Your task to perform on an android device: Play the last video I watched on Youtube Image 0: 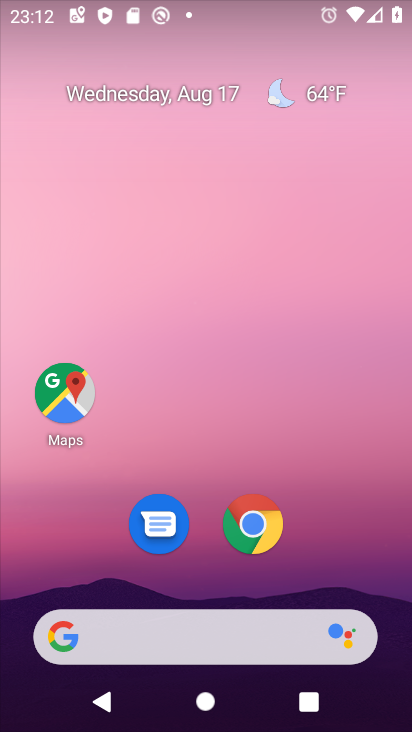
Step 0: drag from (324, 509) to (336, 9)
Your task to perform on an android device: Play the last video I watched on Youtube Image 1: 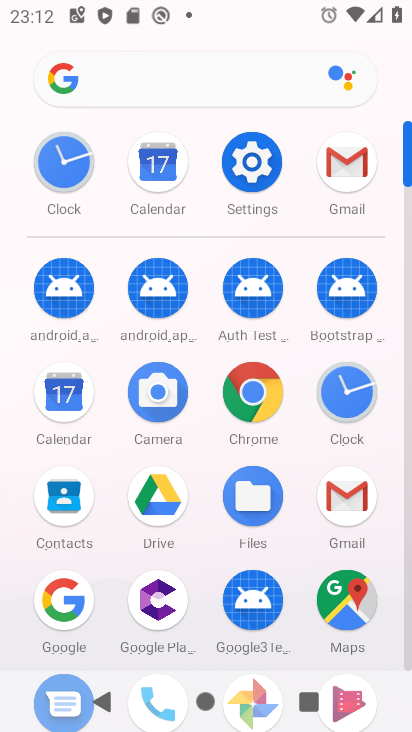
Step 1: drag from (225, 447) to (214, 35)
Your task to perform on an android device: Play the last video I watched on Youtube Image 2: 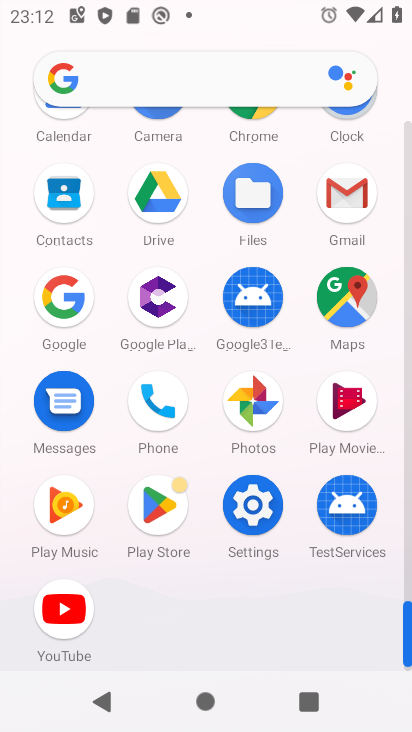
Step 2: click (70, 595)
Your task to perform on an android device: Play the last video I watched on Youtube Image 3: 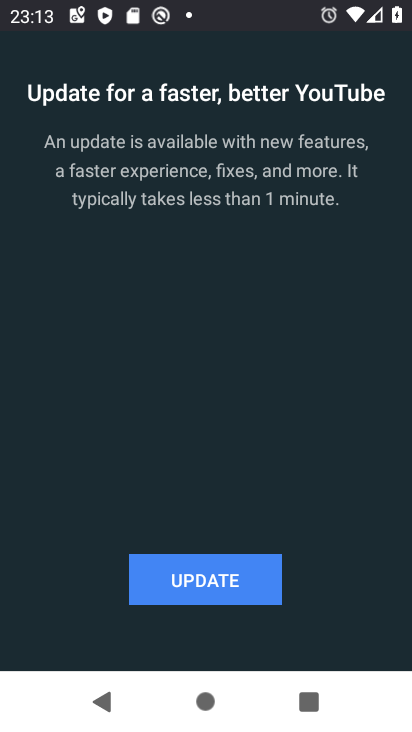
Step 3: click (184, 578)
Your task to perform on an android device: Play the last video I watched on Youtube Image 4: 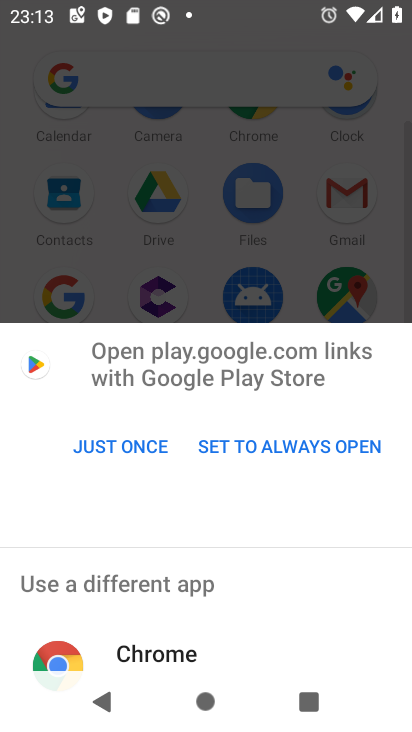
Step 4: click (135, 442)
Your task to perform on an android device: Play the last video I watched on Youtube Image 5: 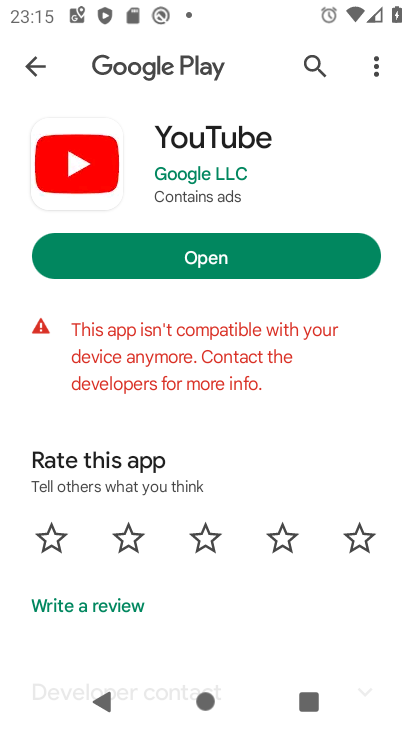
Step 5: task complete